Your task to perform on an android device: open app "AliExpress" (install if not already installed) and go to login screen Image 0: 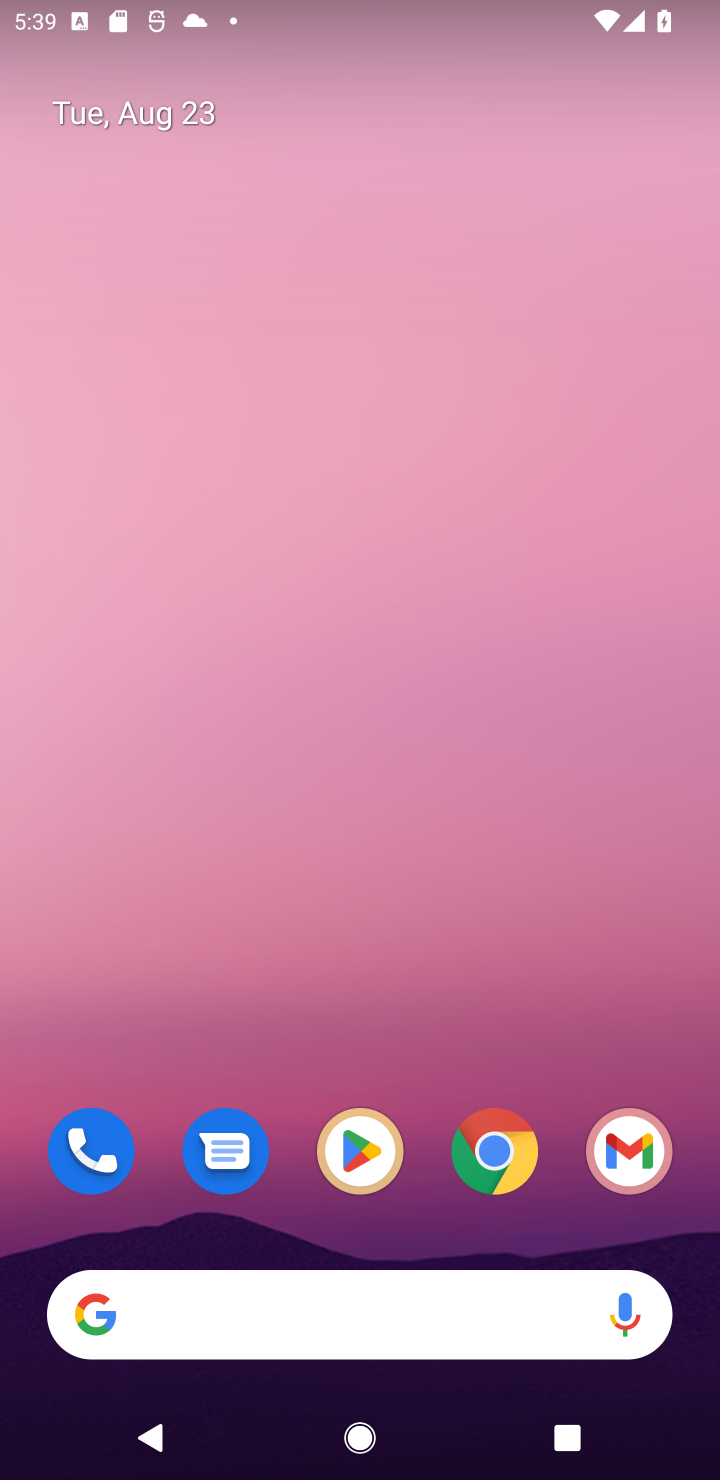
Step 0: click (370, 1143)
Your task to perform on an android device: open app "AliExpress" (install if not already installed) and go to login screen Image 1: 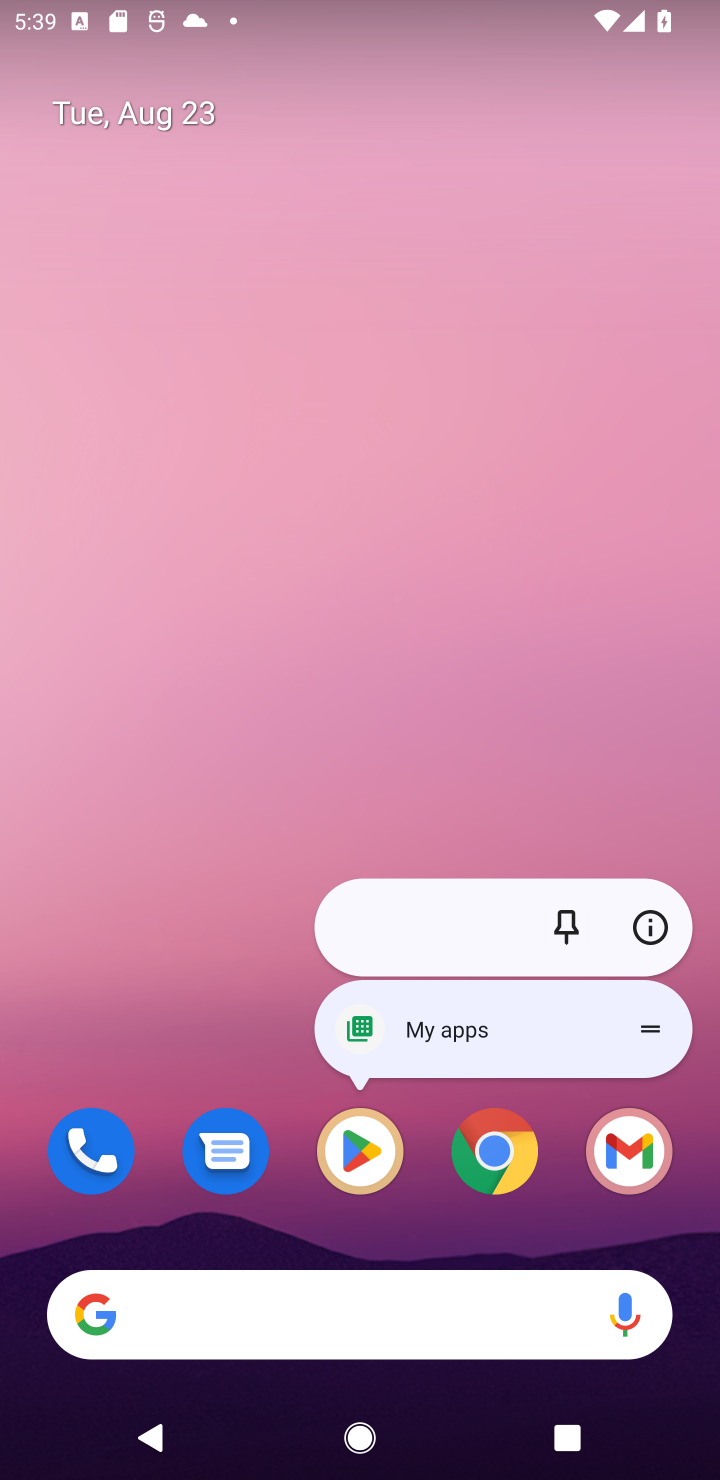
Step 1: click (376, 1154)
Your task to perform on an android device: open app "AliExpress" (install if not already installed) and go to login screen Image 2: 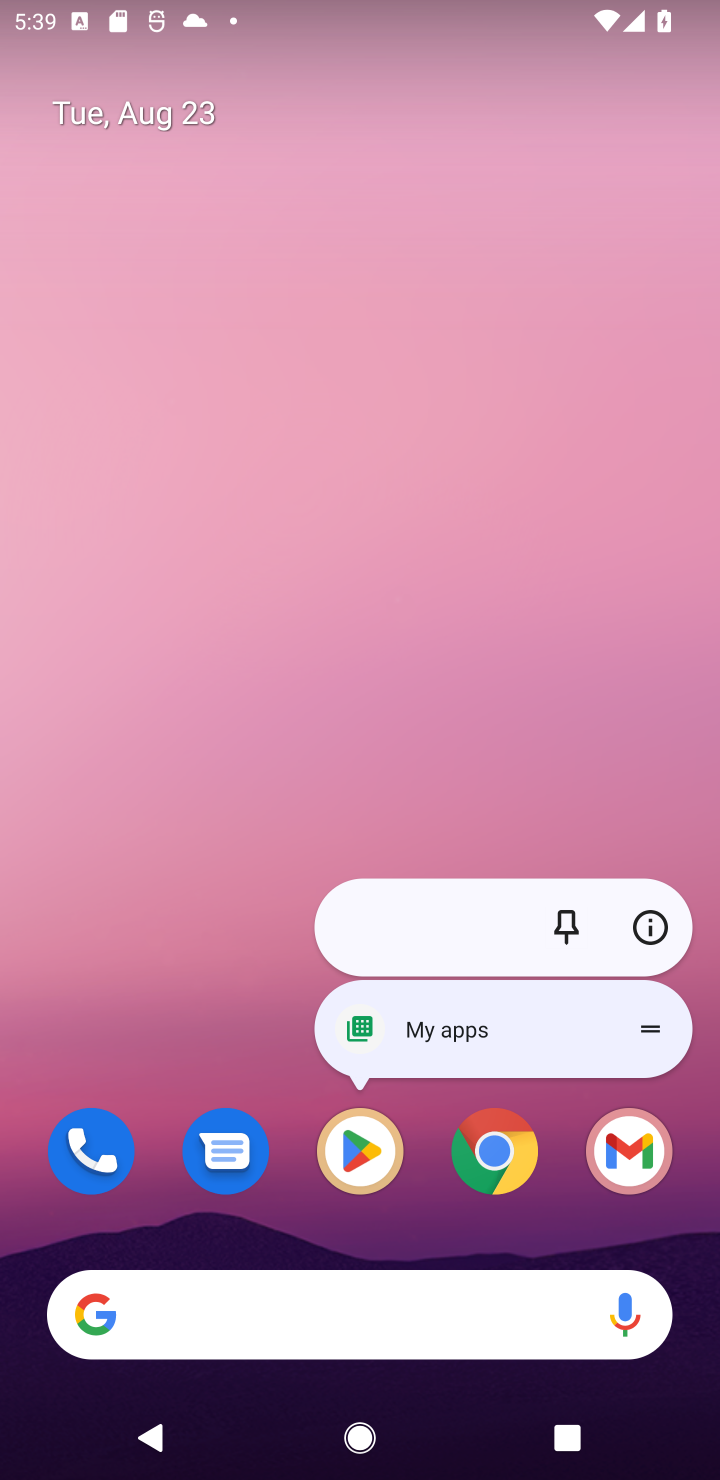
Step 2: click (355, 1160)
Your task to perform on an android device: open app "AliExpress" (install if not already installed) and go to login screen Image 3: 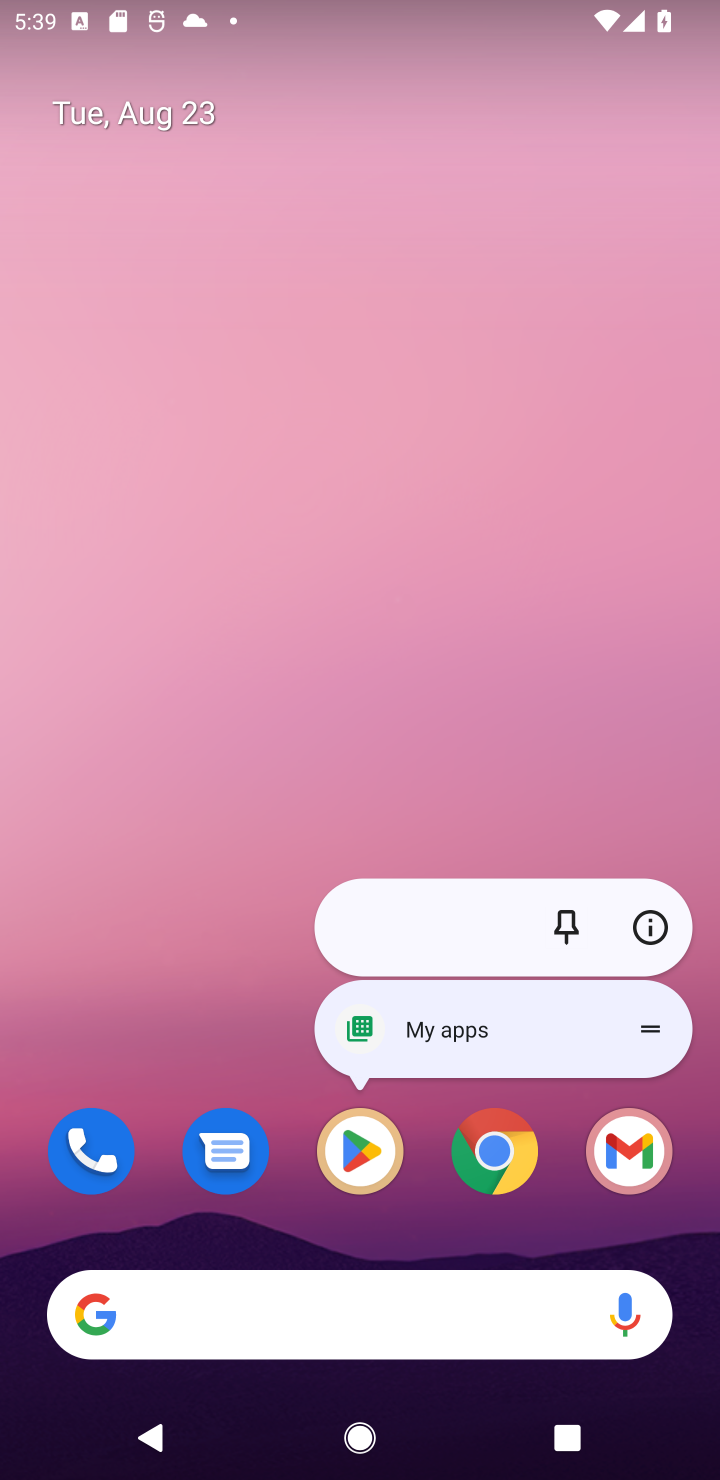
Step 3: click (355, 1160)
Your task to perform on an android device: open app "AliExpress" (install if not already installed) and go to login screen Image 4: 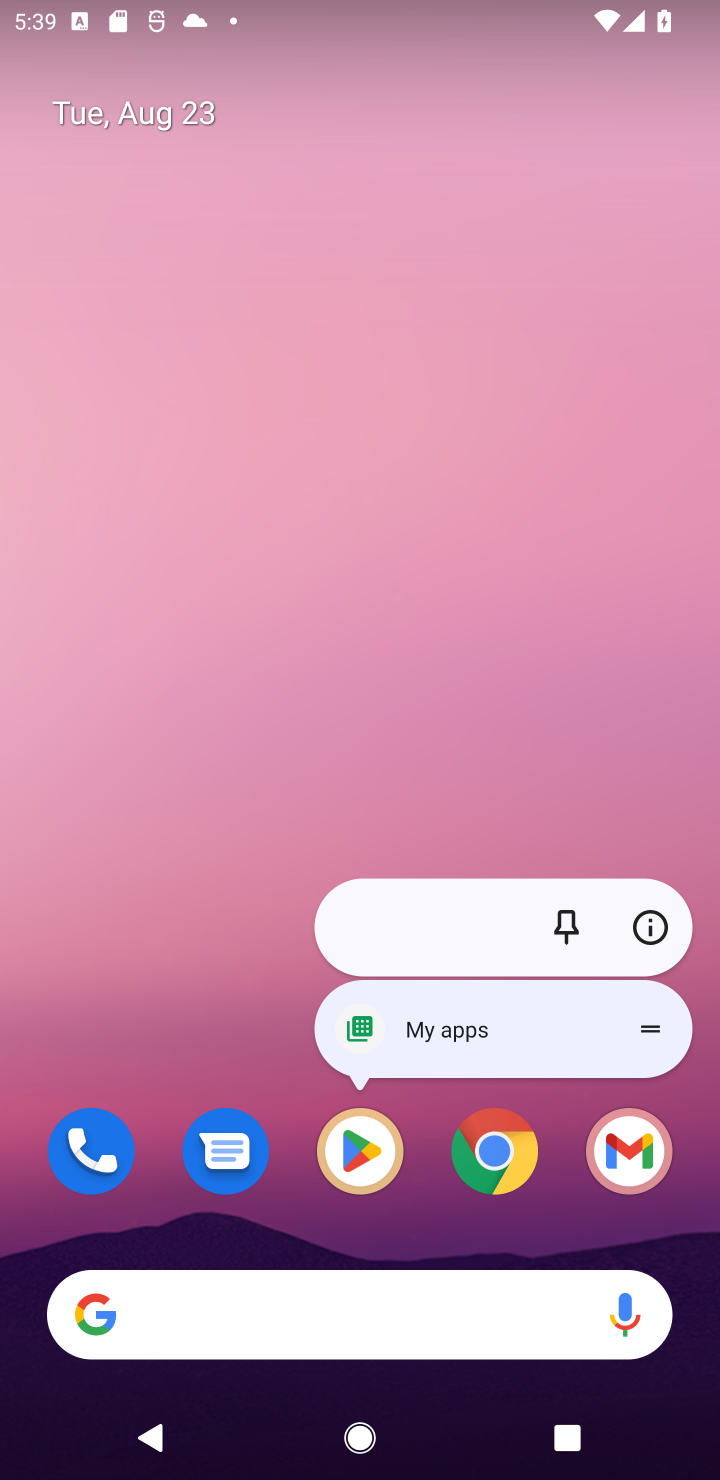
Step 4: click (355, 1160)
Your task to perform on an android device: open app "AliExpress" (install if not already installed) and go to login screen Image 5: 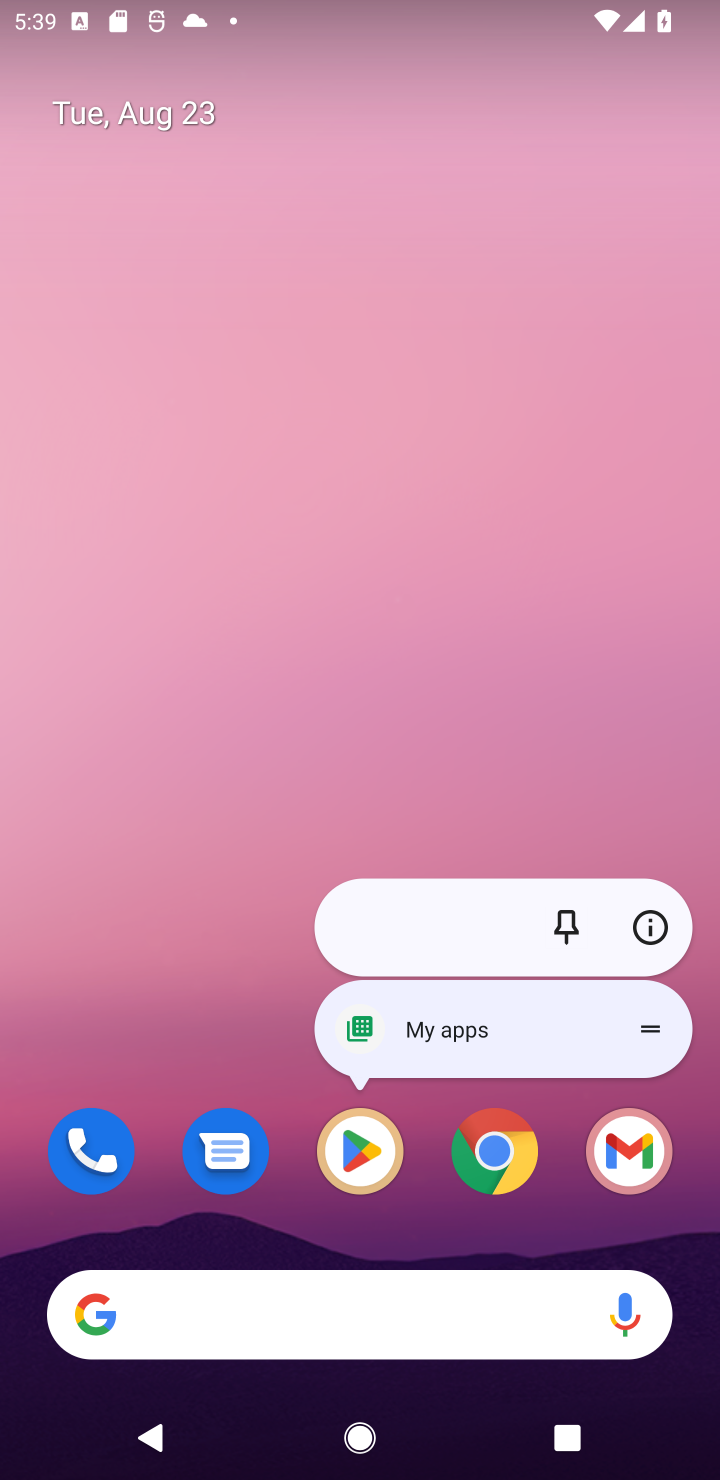
Step 5: click (355, 1160)
Your task to perform on an android device: open app "AliExpress" (install if not already installed) and go to login screen Image 6: 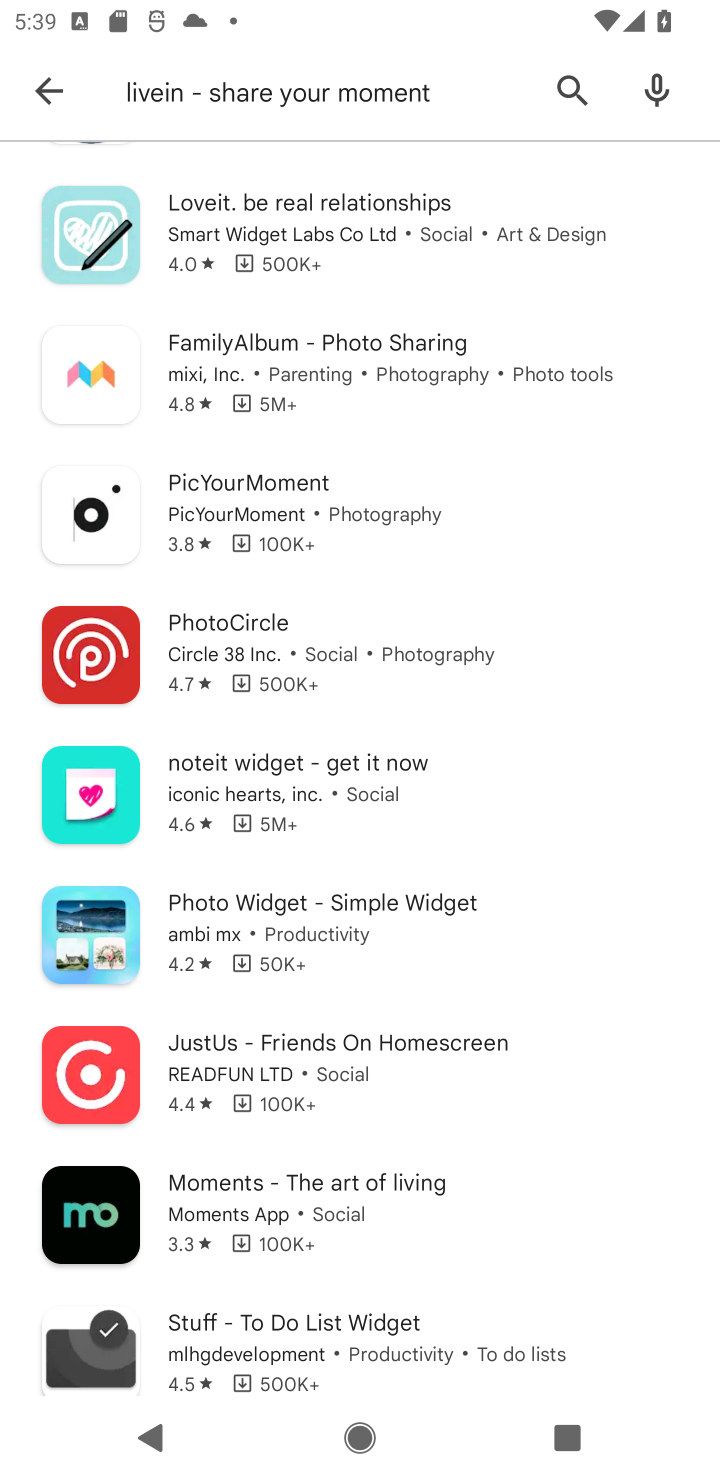
Step 6: click (563, 93)
Your task to perform on an android device: open app "AliExpress" (install if not already installed) and go to login screen Image 7: 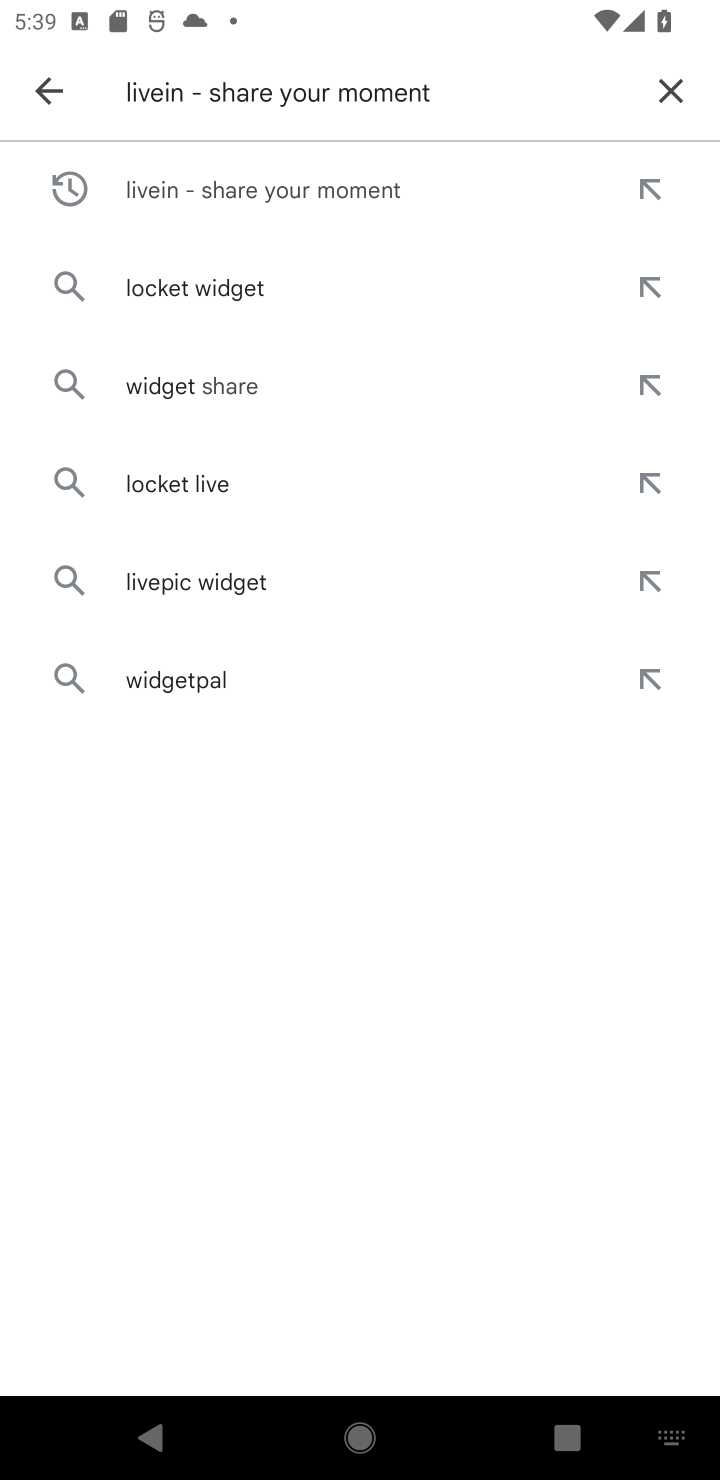
Step 7: click (667, 74)
Your task to perform on an android device: open app "AliExpress" (install if not already installed) and go to login screen Image 8: 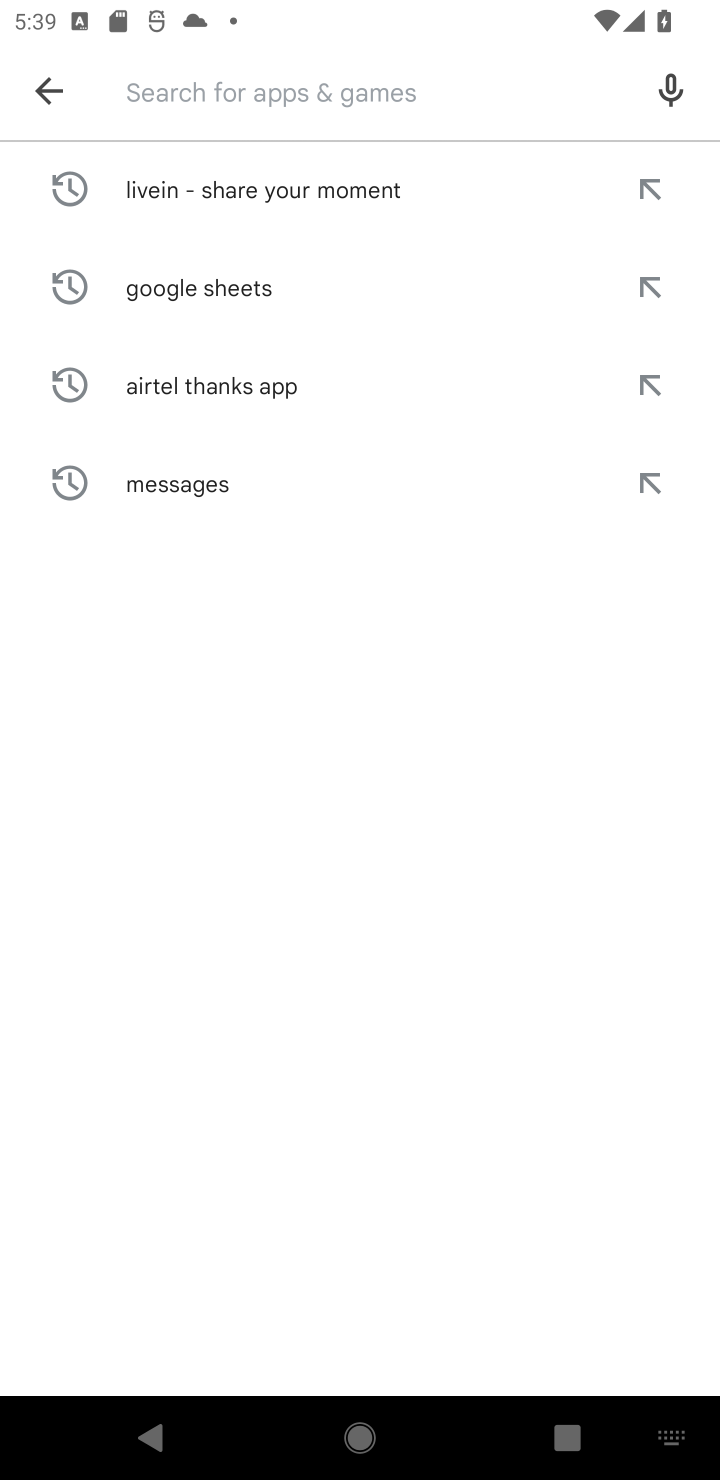
Step 8: type "AliExpress"
Your task to perform on an android device: open app "AliExpress" (install if not already installed) and go to login screen Image 9: 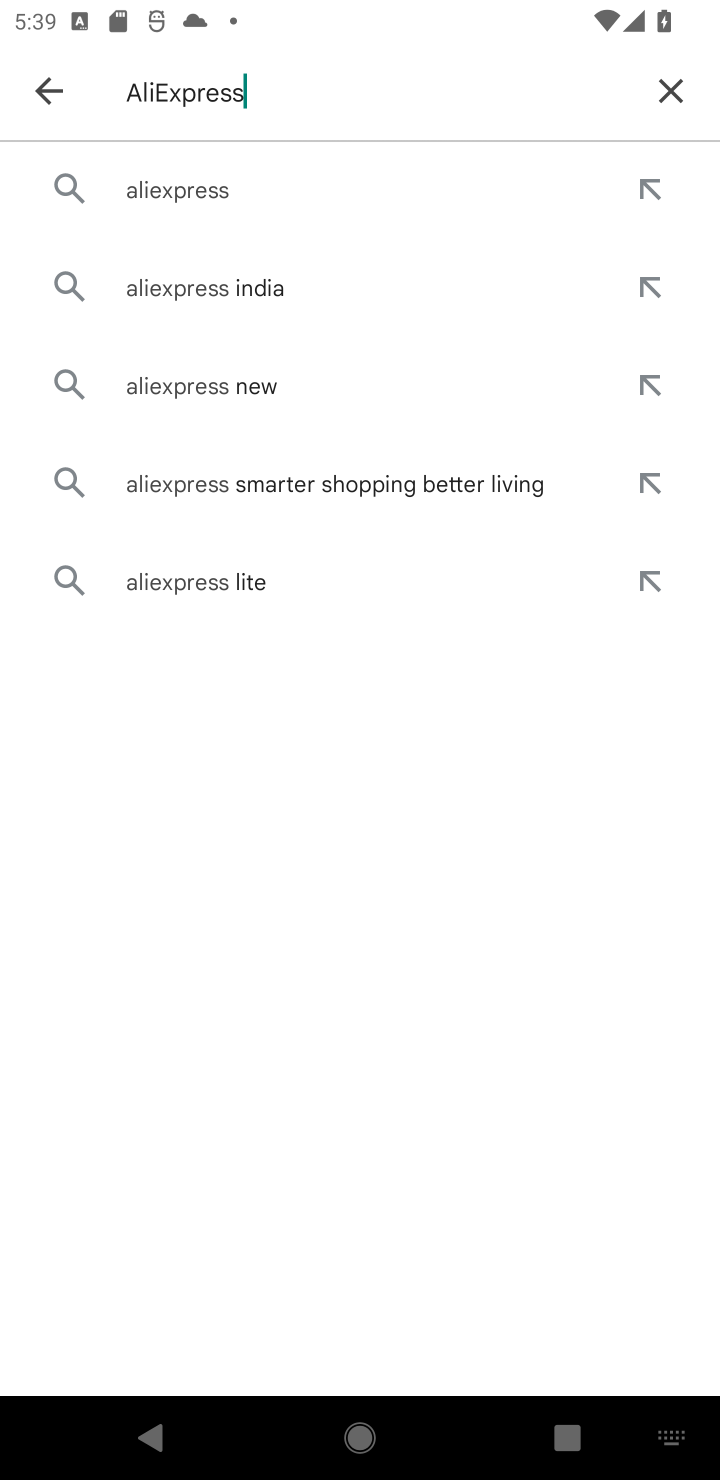
Step 9: click (214, 188)
Your task to perform on an android device: open app "AliExpress" (install if not already installed) and go to login screen Image 10: 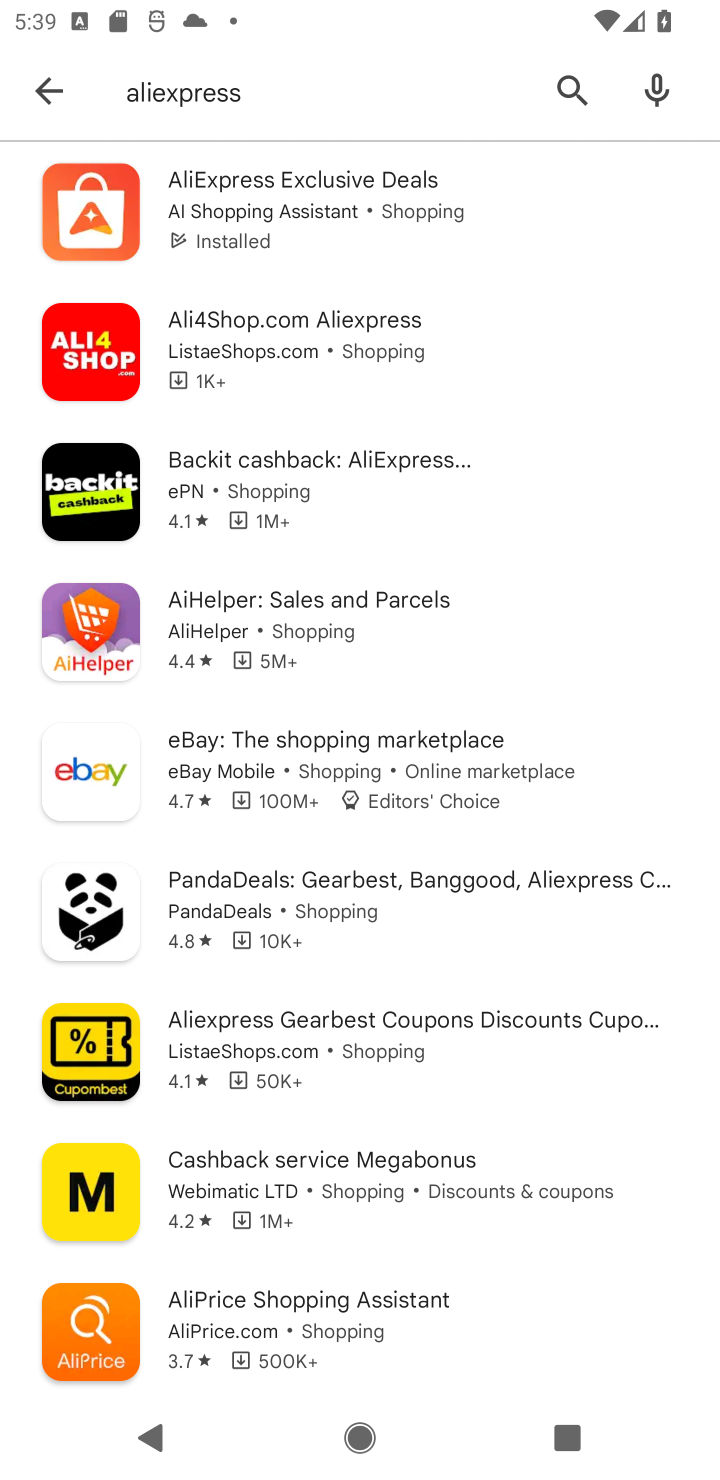
Step 10: click (260, 201)
Your task to perform on an android device: open app "AliExpress" (install if not already installed) and go to login screen Image 11: 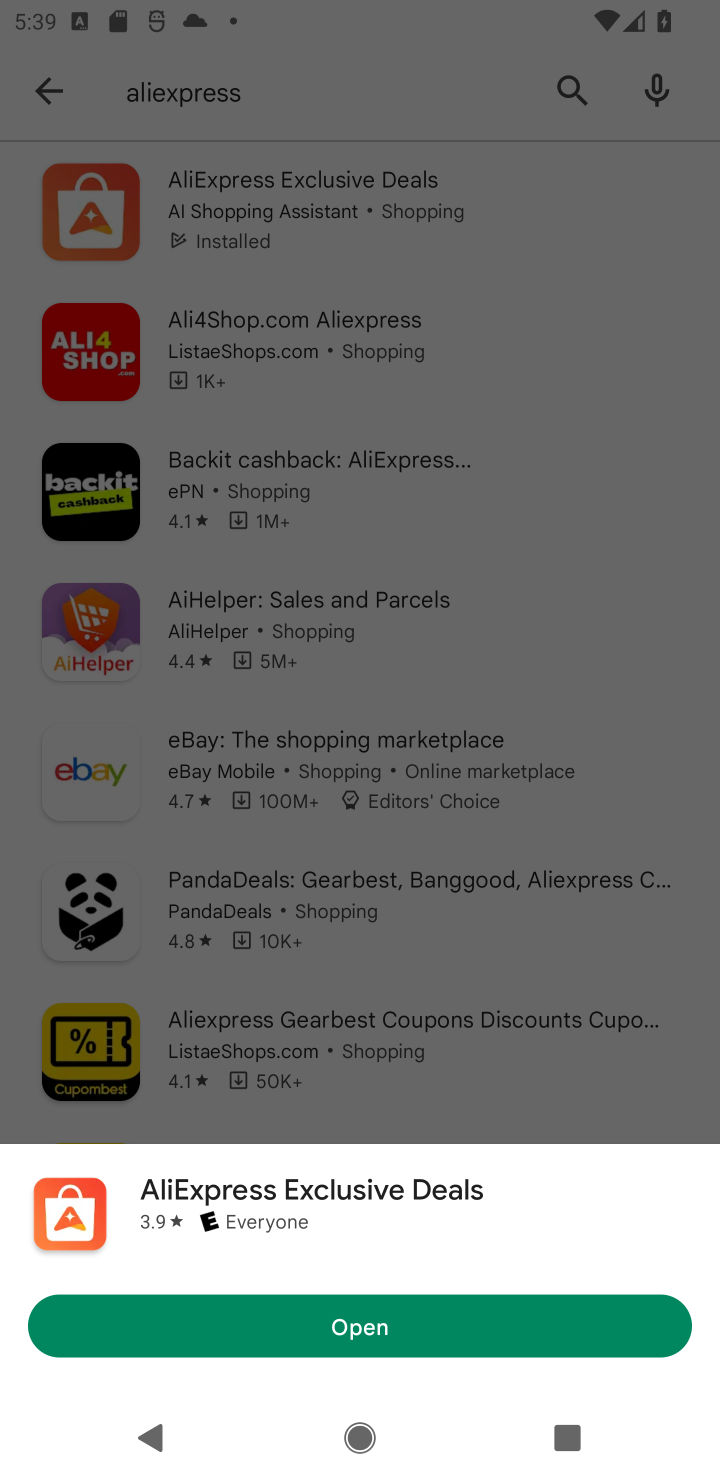
Step 11: click (307, 1334)
Your task to perform on an android device: open app "AliExpress" (install if not already installed) and go to login screen Image 12: 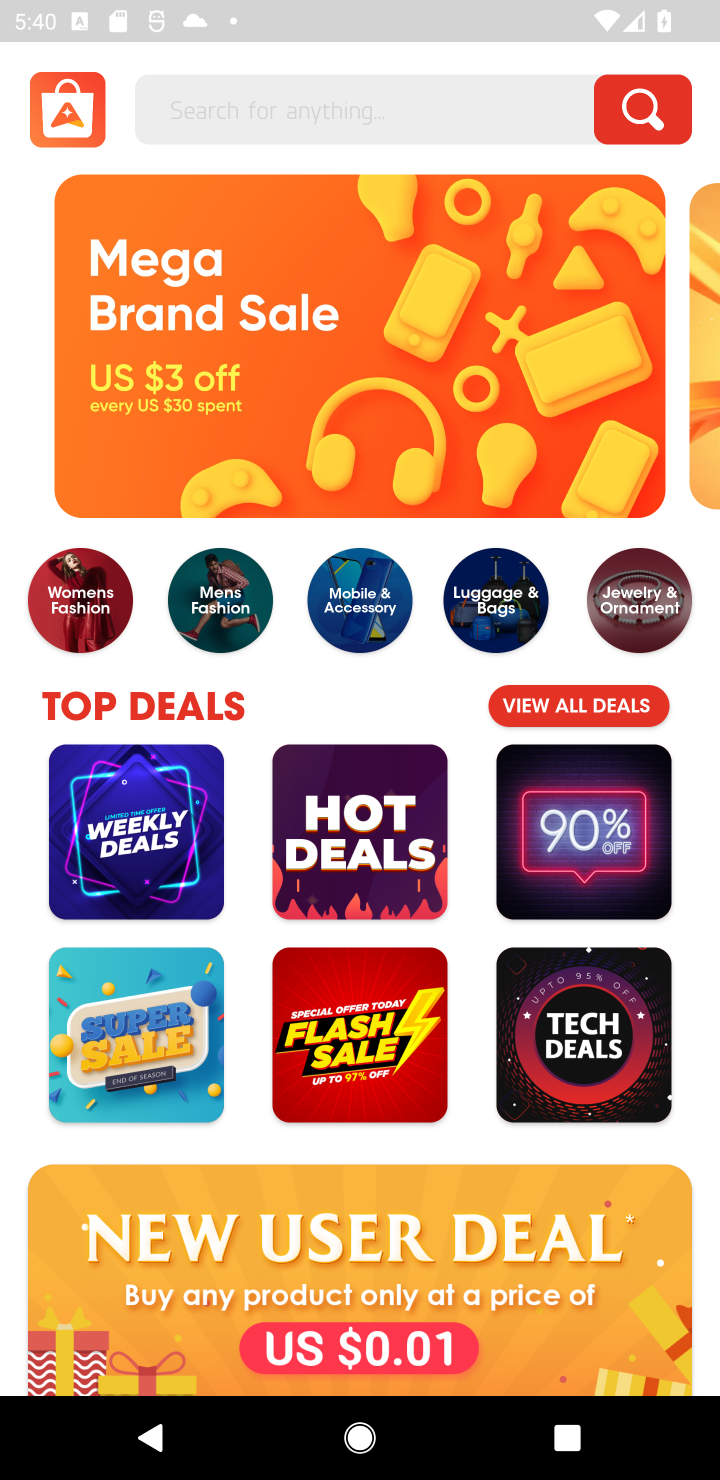
Step 12: task complete